Your task to perform on an android device: open app "Airtel Thanks" Image 0: 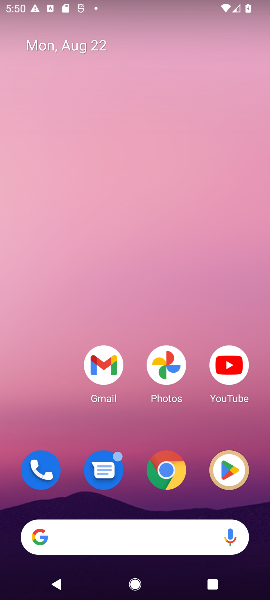
Step 0: drag from (130, 525) to (156, 211)
Your task to perform on an android device: open app "Airtel Thanks" Image 1: 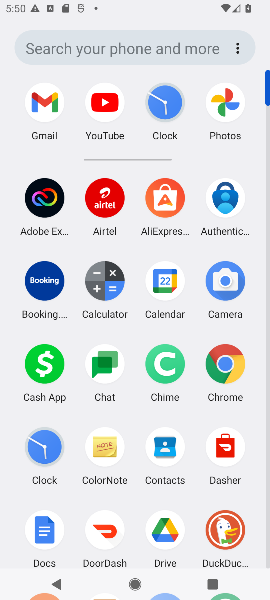
Step 1: drag from (114, 492) to (133, 142)
Your task to perform on an android device: open app "Airtel Thanks" Image 2: 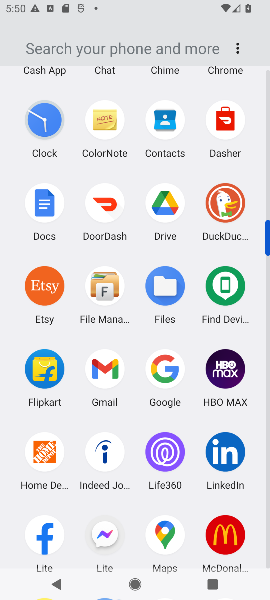
Step 2: drag from (123, 491) to (145, 112)
Your task to perform on an android device: open app "Airtel Thanks" Image 3: 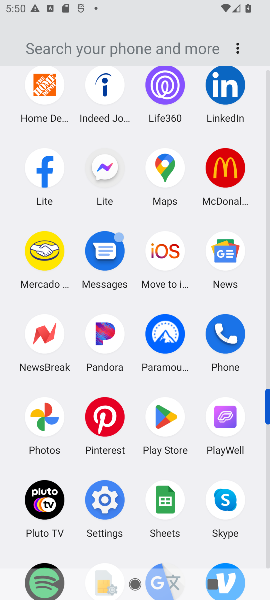
Step 3: drag from (132, 491) to (126, 273)
Your task to perform on an android device: open app "Airtel Thanks" Image 4: 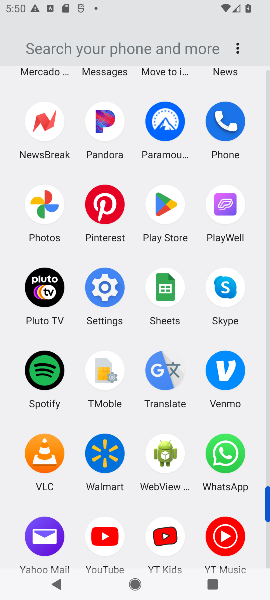
Step 4: click (159, 199)
Your task to perform on an android device: open app "Airtel Thanks" Image 5: 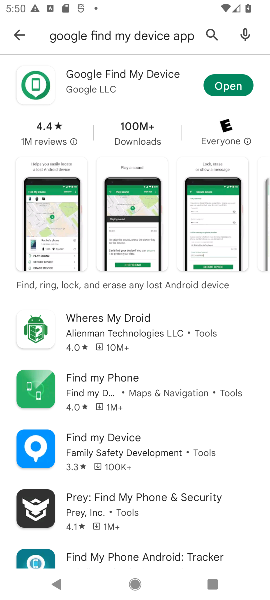
Step 5: click (23, 24)
Your task to perform on an android device: open app "Airtel Thanks" Image 6: 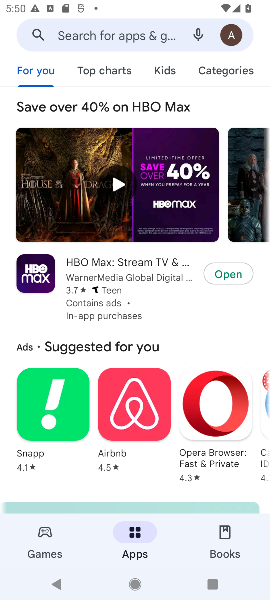
Step 6: click (109, 27)
Your task to perform on an android device: open app "Airtel Thanks" Image 7: 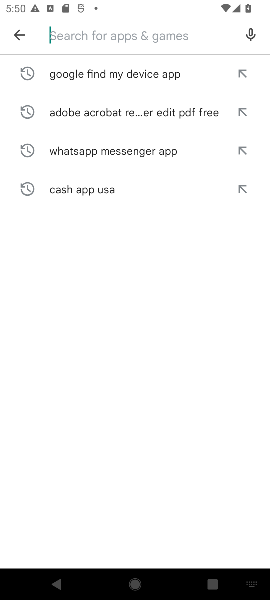
Step 7: type "Airtel Thanks "
Your task to perform on an android device: open app "Airtel Thanks" Image 8: 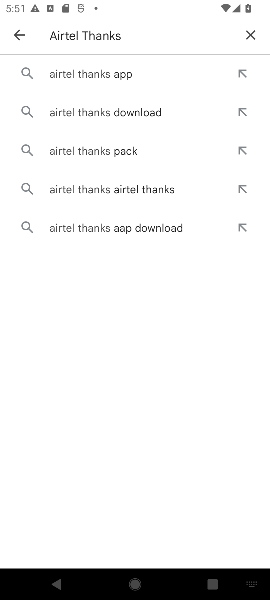
Step 8: click (115, 70)
Your task to perform on an android device: open app "Airtel Thanks" Image 9: 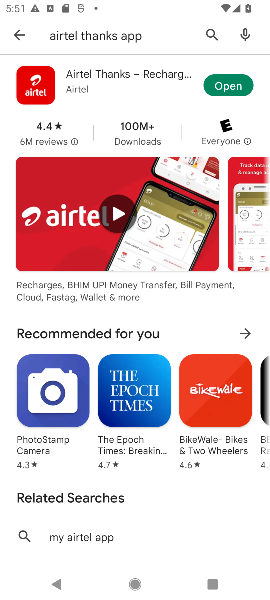
Step 9: click (230, 79)
Your task to perform on an android device: open app "Airtel Thanks" Image 10: 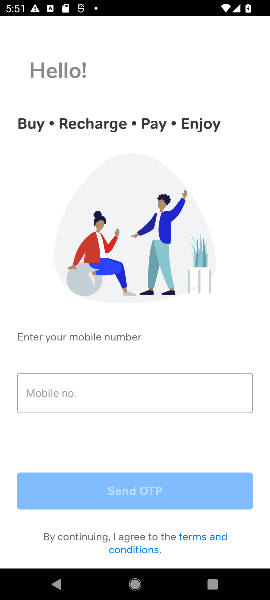
Step 10: task complete